Your task to perform on an android device: Search for "bose soundlink" on bestbuy.com, select the first entry, add it to the cart, then select checkout. Image 0: 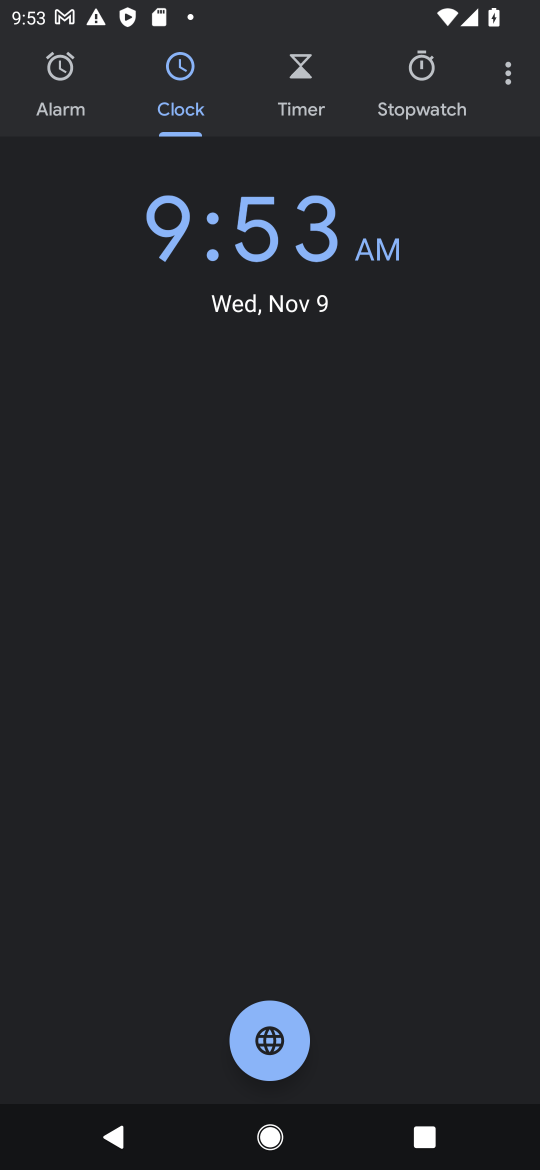
Step 0: press home button
Your task to perform on an android device: Search for "bose soundlink" on bestbuy.com, select the first entry, add it to the cart, then select checkout. Image 1: 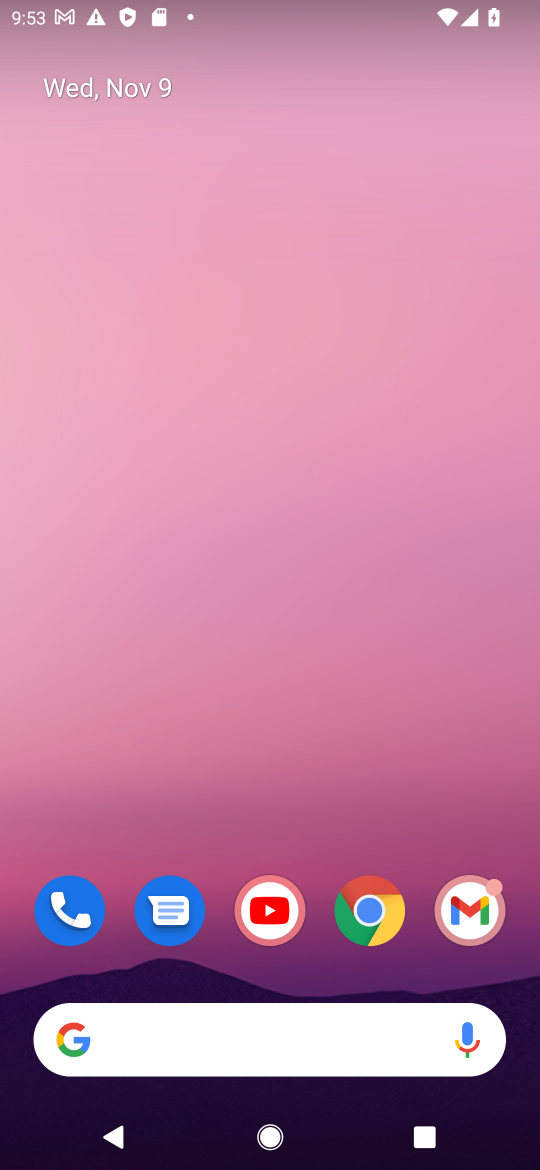
Step 1: click (364, 897)
Your task to perform on an android device: Search for "bose soundlink" on bestbuy.com, select the first entry, add it to the cart, then select checkout. Image 2: 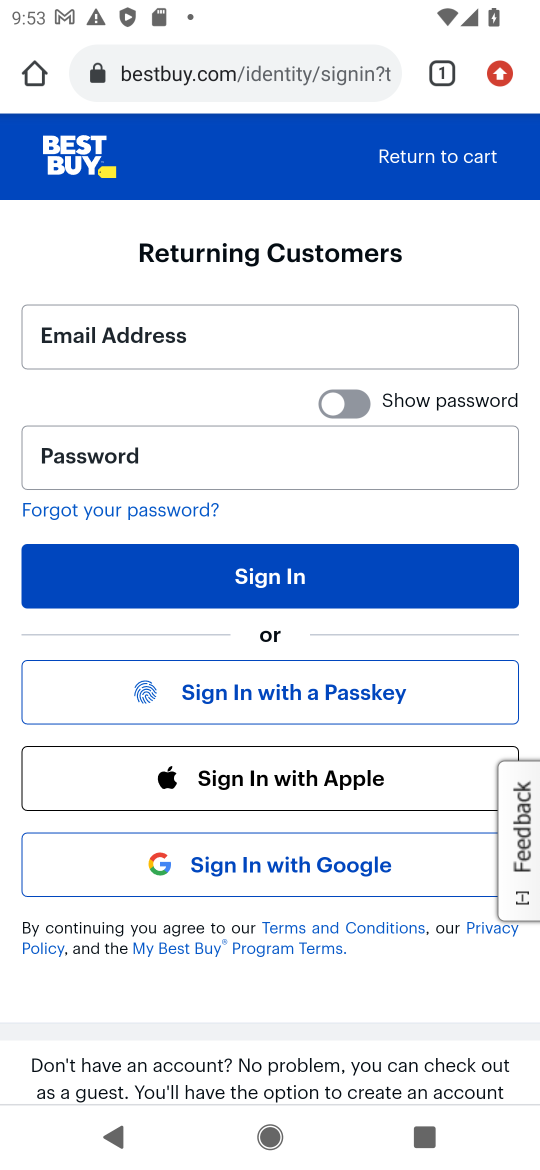
Step 2: click (462, 154)
Your task to perform on an android device: Search for "bose soundlink" on bestbuy.com, select the first entry, add it to the cart, then select checkout. Image 3: 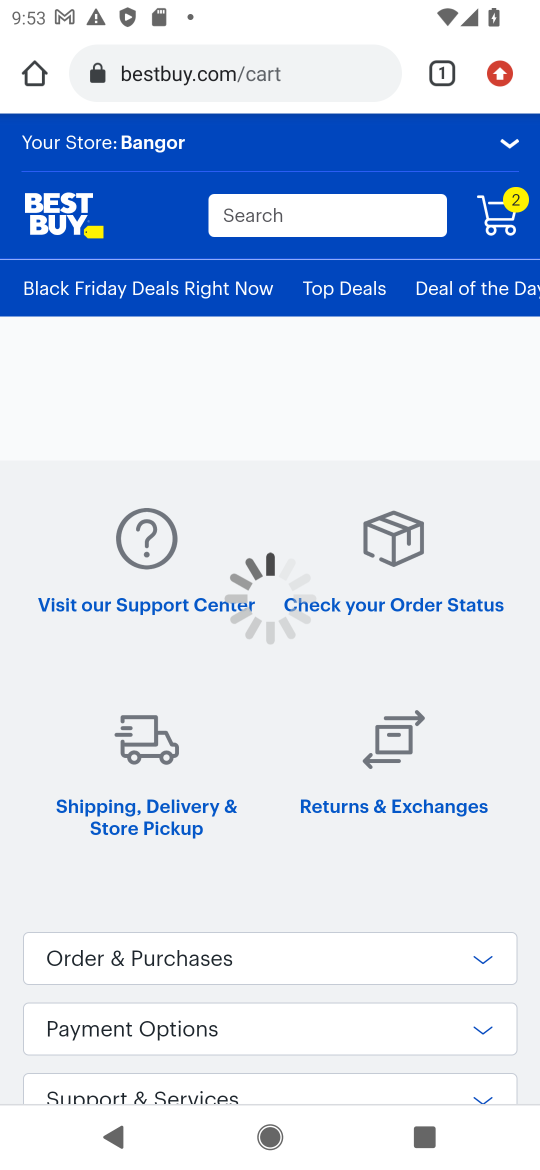
Step 3: click (315, 213)
Your task to perform on an android device: Search for "bose soundlink" on bestbuy.com, select the first entry, add it to the cart, then select checkout. Image 4: 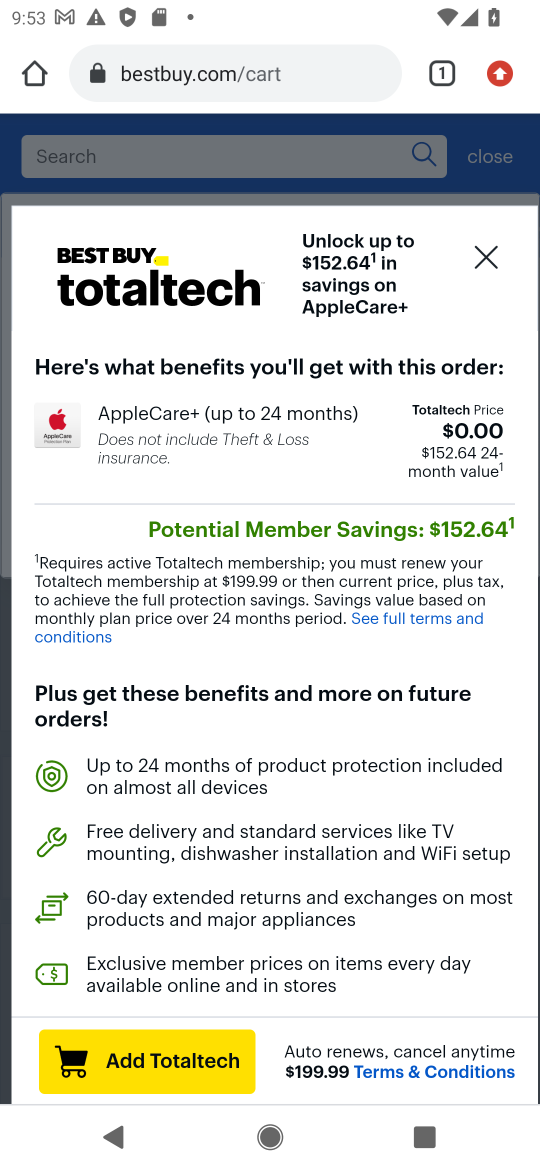
Step 4: type "bose soundlink"
Your task to perform on an android device: Search for "bose soundlink" on bestbuy.com, select the first entry, add it to the cart, then select checkout. Image 5: 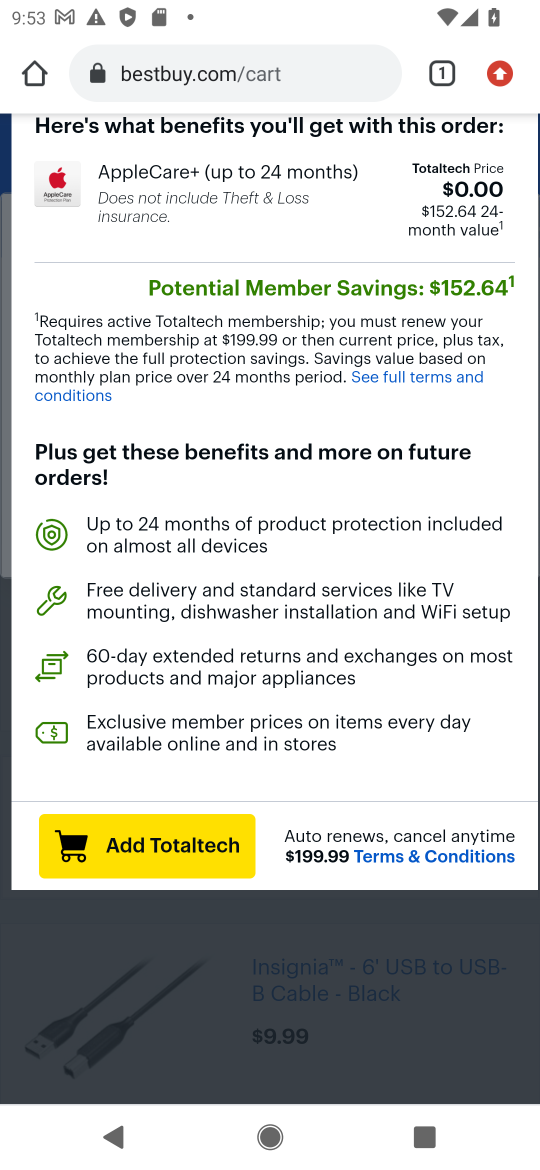
Step 5: drag from (394, 250) to (372, 744)
Your task to perform on an android device: Search for "bose soundlink" on bestbuy.com, select the first entry, add it to the cart, then select checkout. Image 6: 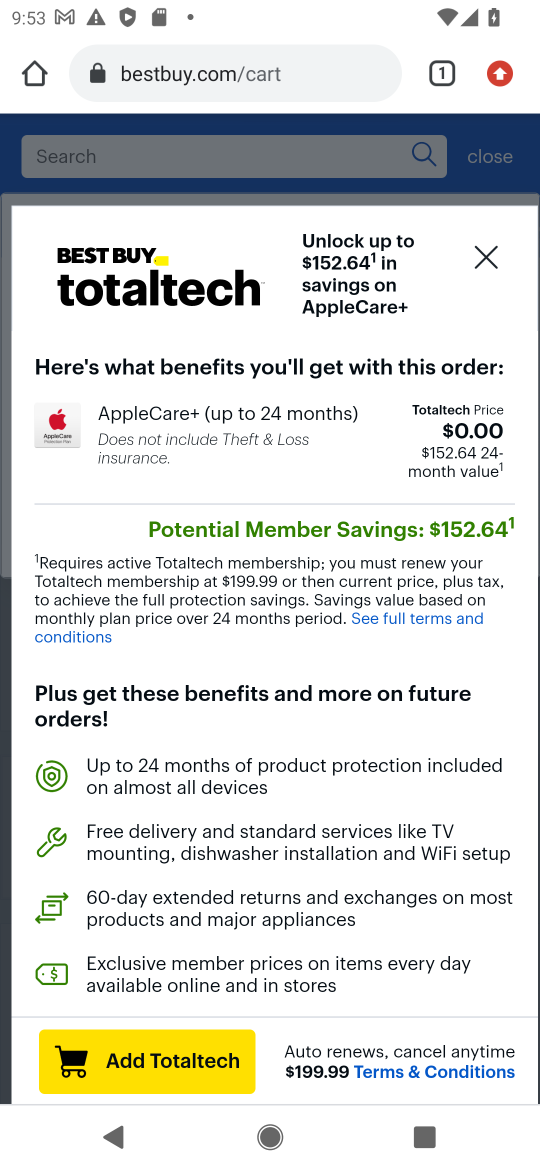
Step 6: click (479, 256)
Your task to perform on an android device: Search for "bose soundlink" on bestbuy.com, select the first entry, add it to the cart, then select checkout. Image 7: 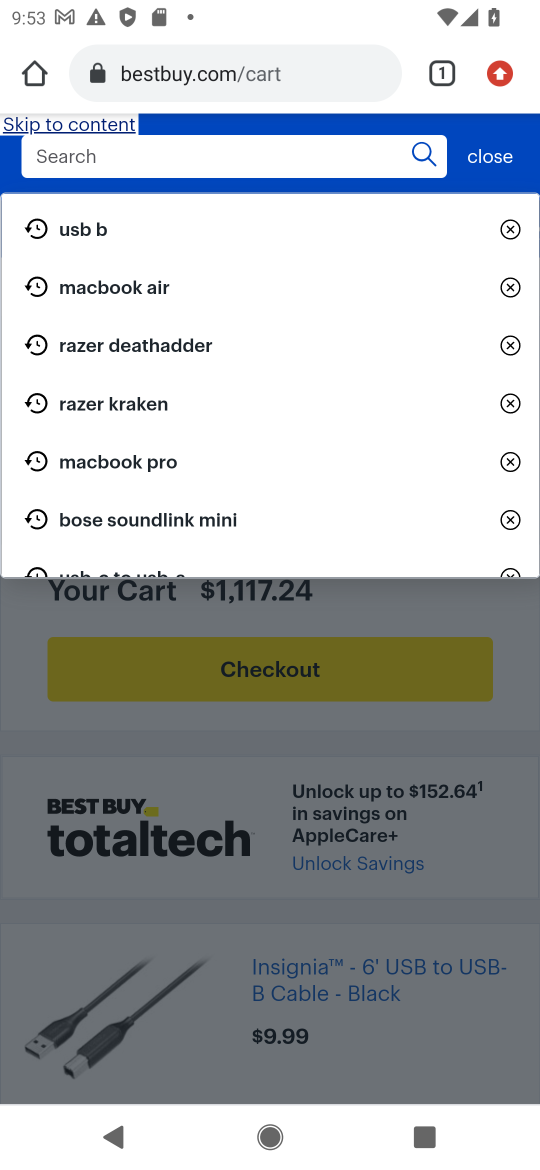
Step 7: click (144, 166)
Your task to perform on an android device: Search for "bose soundlink" on bestbuy.com, select the first entry, add it to the cart, then select checkout. Image 8: 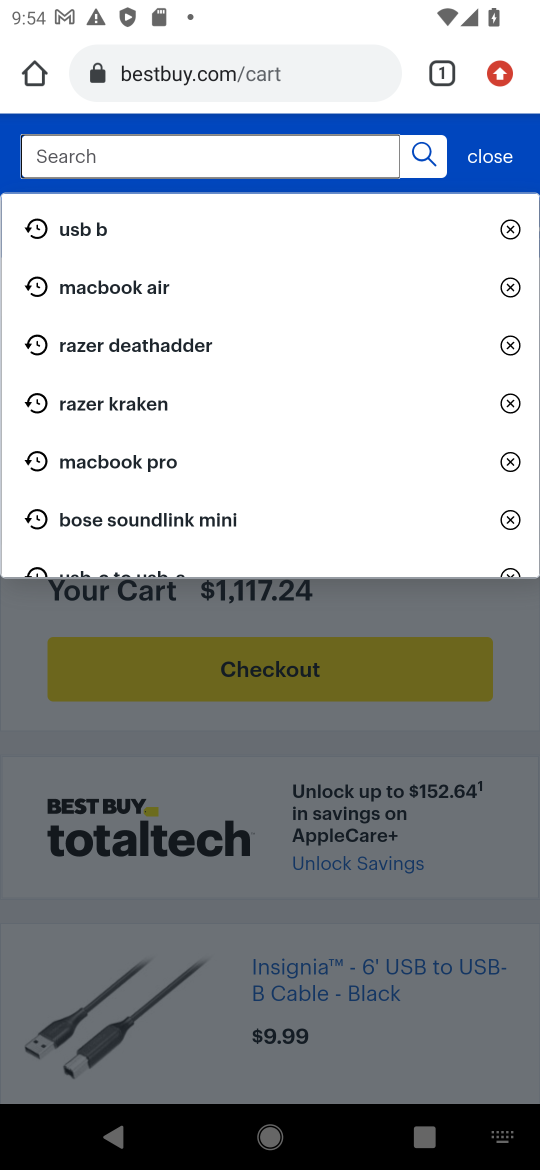
Step 8: type "bose soundlink"
Your task to perform on an android device: Search for "bose soundlink" on bestbuy.com, select the first entry, add it to the cart, then select checkout. Image 9: 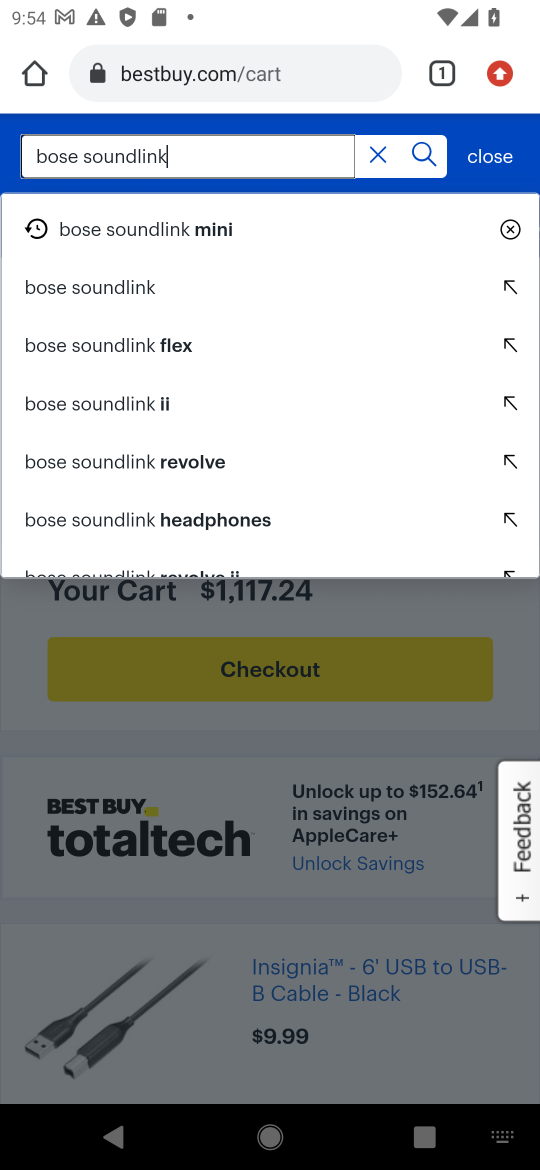
Step 9: click (119, 288)
Your task to perform on an android device: Search for "bose soundlink" on bestbuy.com, select the first entry, add it to the cart, then select checkout. Image 10: 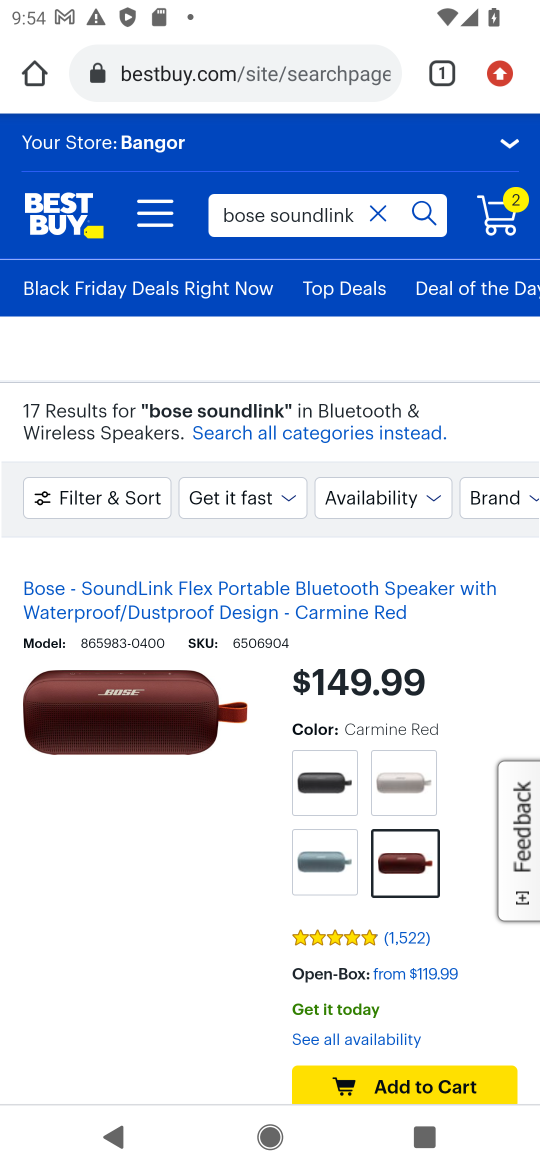
Step 10: click (410, 1073)
Your task to perform on an android device: Search for "bose soundlink" on bestbuy.com, select the first entry, add it to the cart, then select checkout. Image 11: 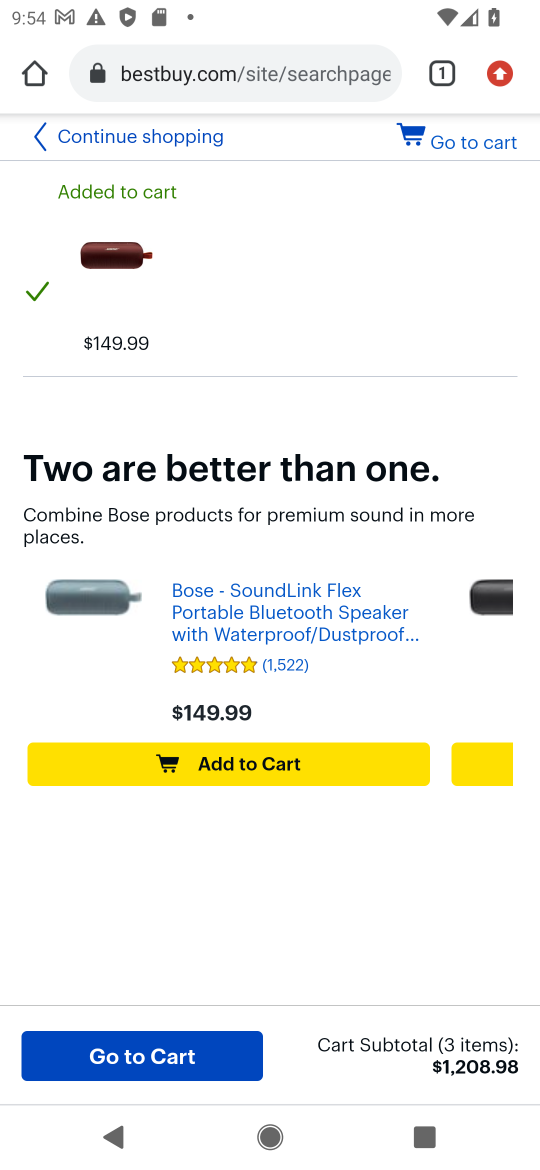
Step 11: click (470, 152)
Your task to perform on an android device: Search for "bose soundlink" on bestbuy.com, select the first entry, add it to the cart, then select checkout. Image 12: 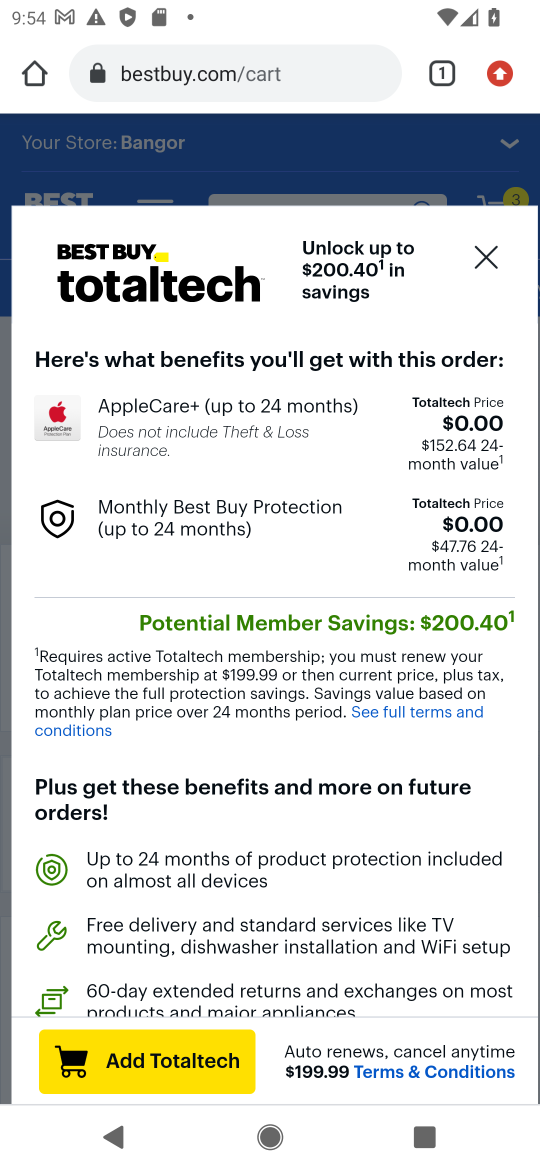
Step 12: click (496, 254)
Your task to perform on an android device: Search for "bose soundlink" on bestbuy.com, select the first entry, add it to the cart, then select checkout. Image 13: 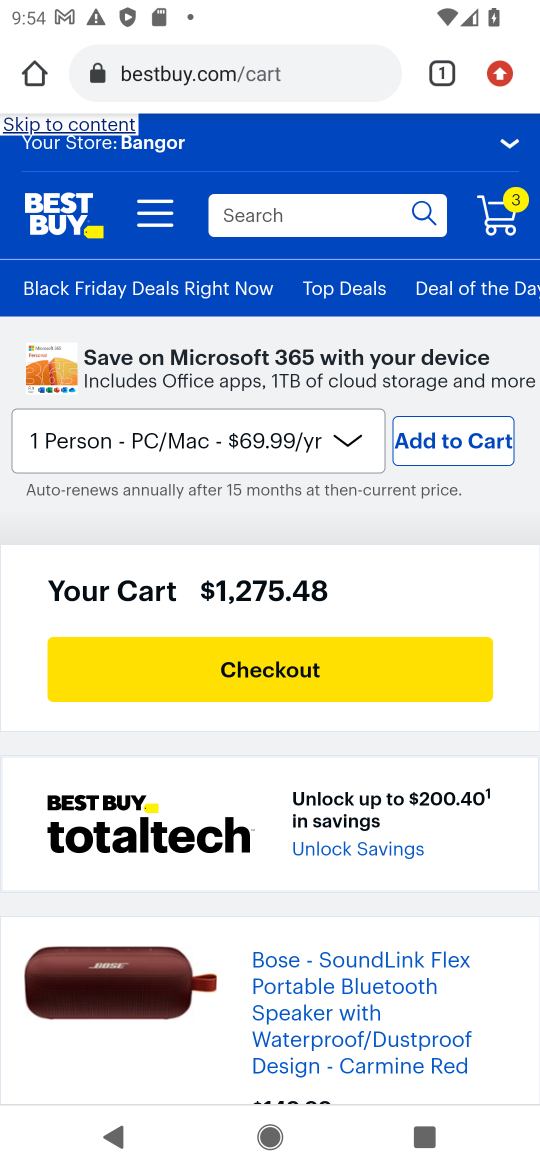
Step 13: click (280, 679)
Your task to perform on an android device: Search for "bose soundlink" on bestbuy.com, select the first entry, add it to the cart, then select checkout. Image 14: 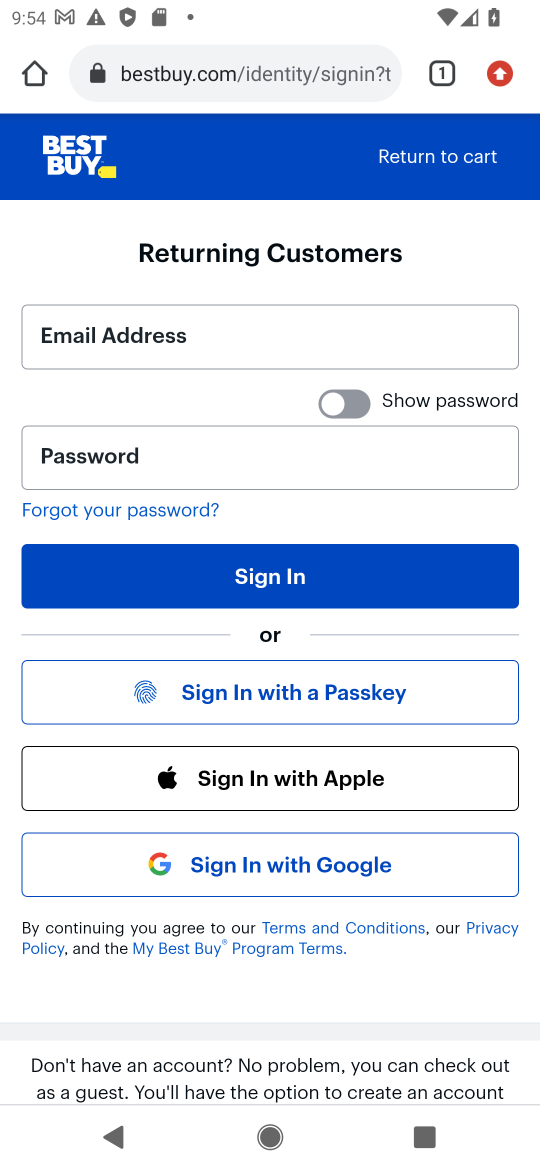
Step 14: task complete